Your task to perform on an android device: Is it going to rain tomorrow? Image 0: 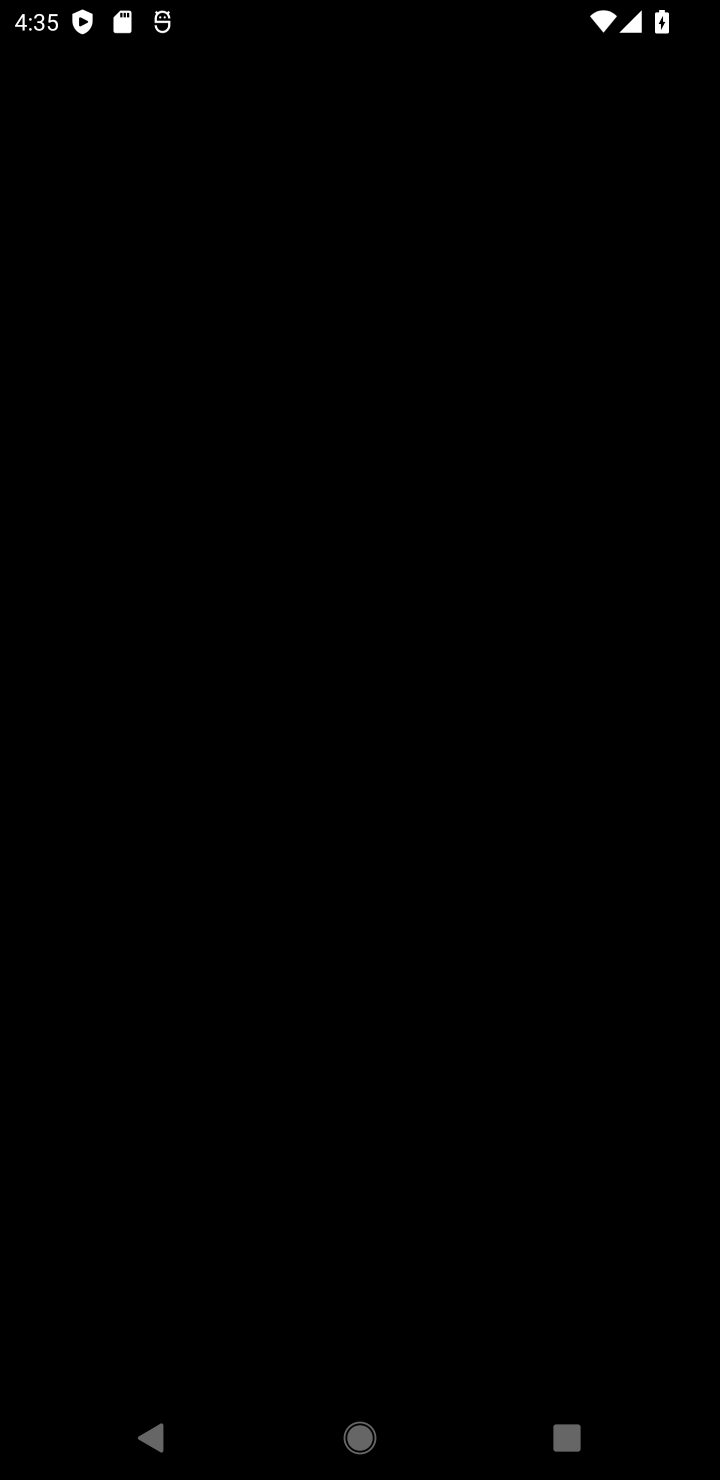
Step 0: press home button
Your task to perform on an android device: Is it going to rain tomorrow? Image 1: 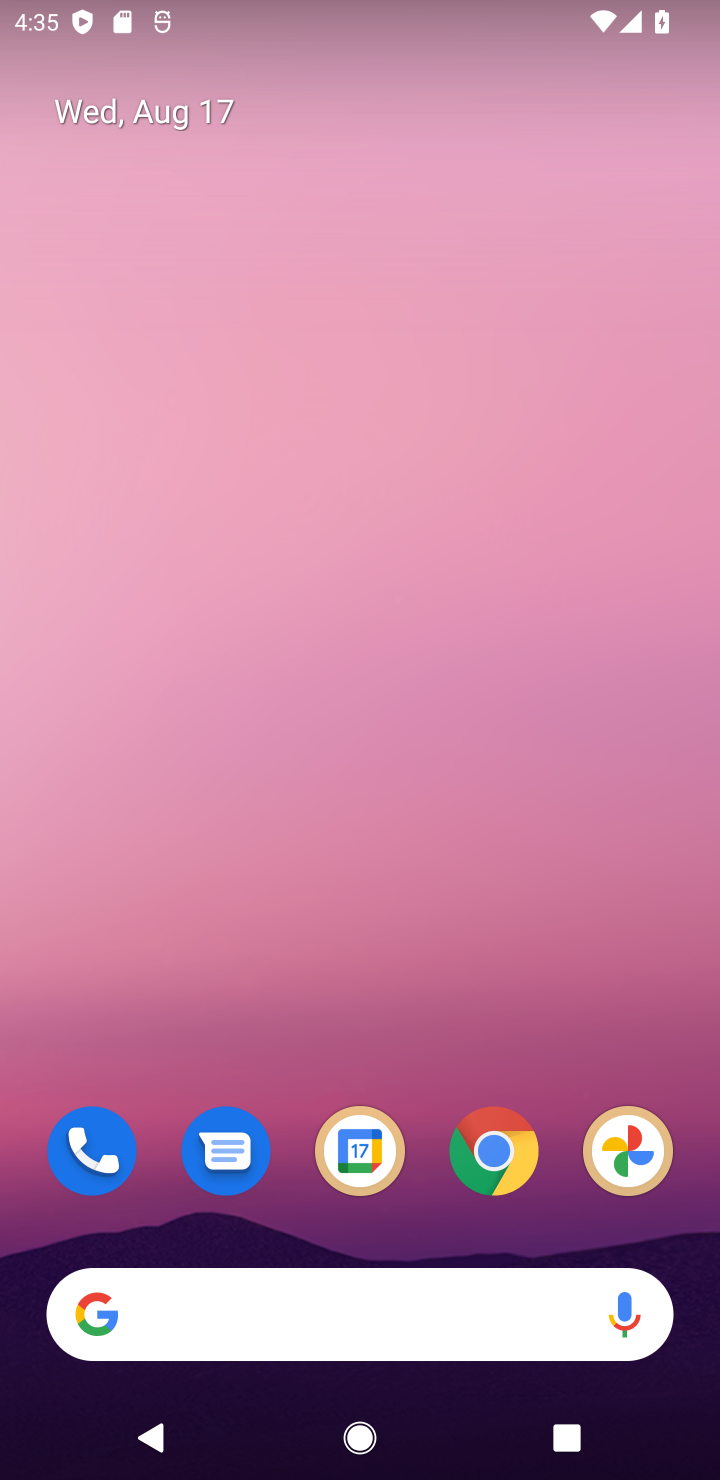
Step 1: click (399, 1327)
Your task to perform on an android device: Is it going to rain tomorrow? Image 2: 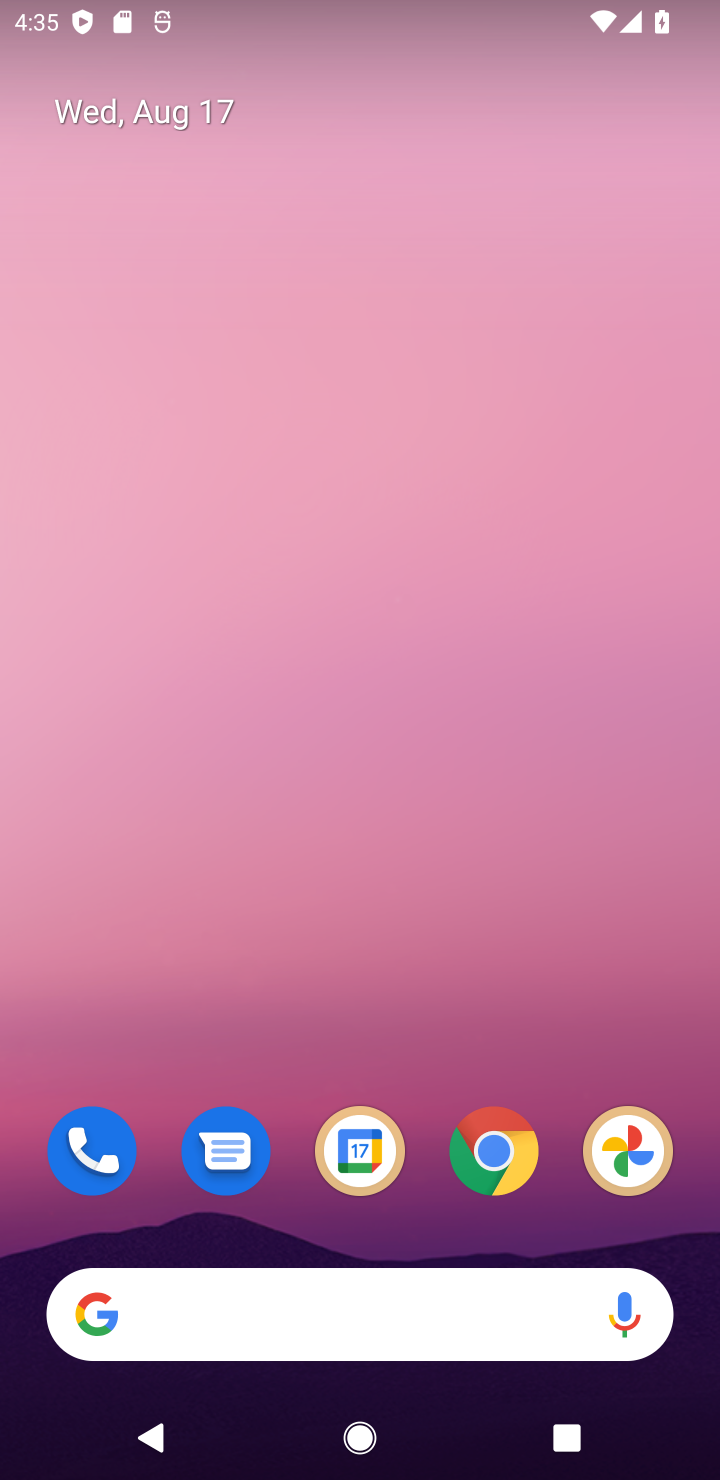
Step 2: click (399, 1327)
Your task to perform on an android device: Is it going to rain tomorrow? Image 3: 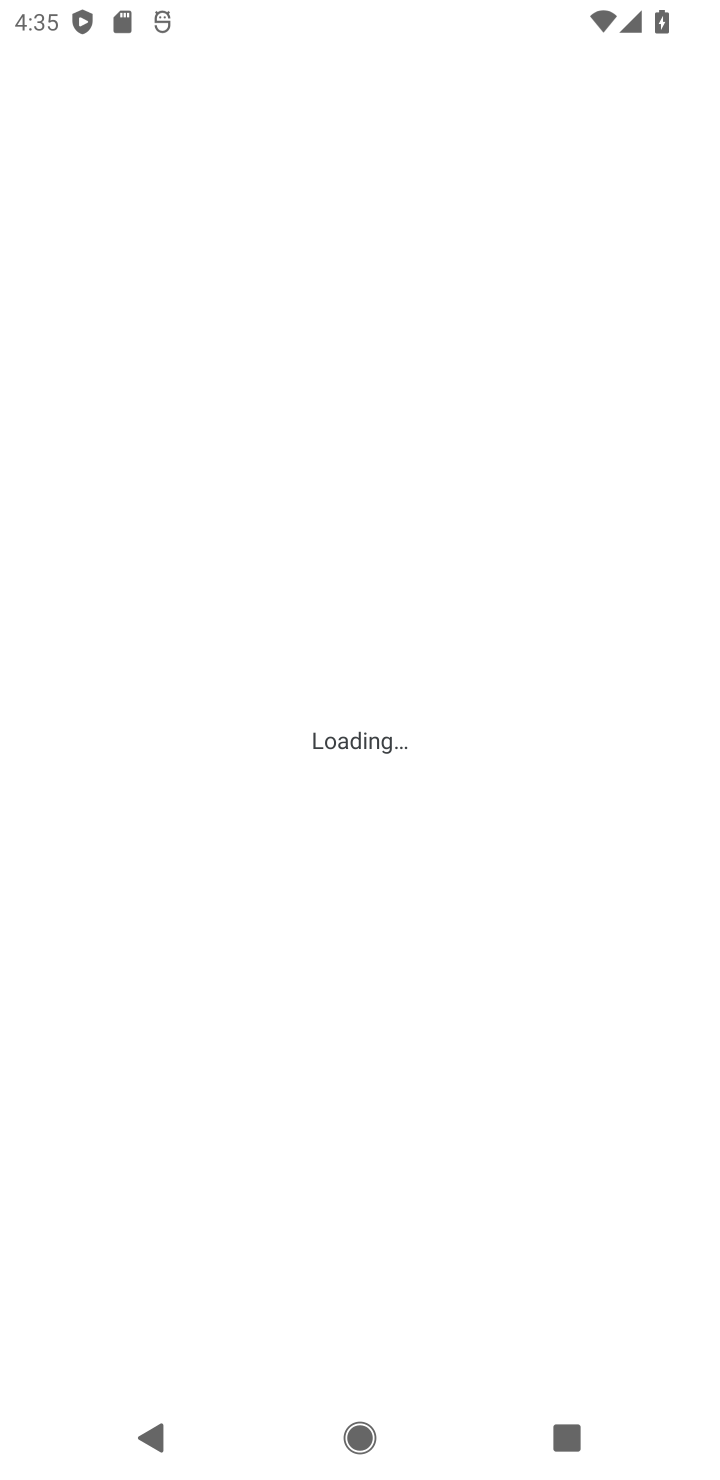
Step 3: task complete